Your task to perform on an android device: change the clock display to show seconds Image 0: 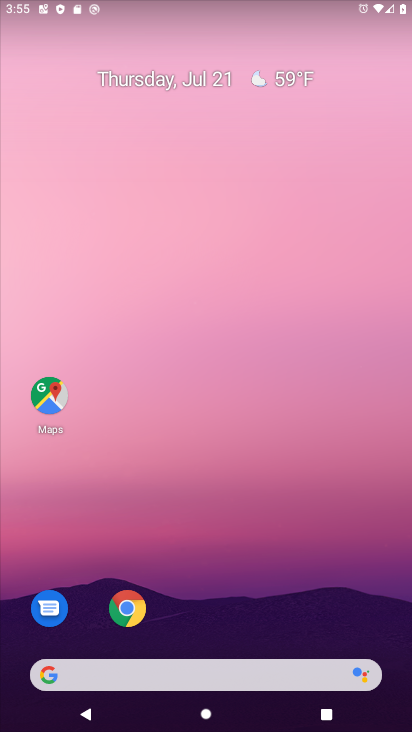
Step 0: drag from (237, 679) to (301, 2)
Your task to perform on an android device: change the clock display to show seconds Image 1: 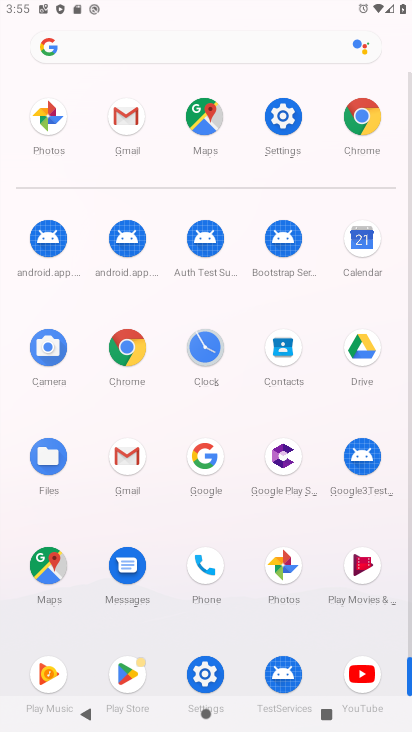
Step 1: click (206, 350)
Your task to perform on an android device: change the clock display to show seconds Image 2: 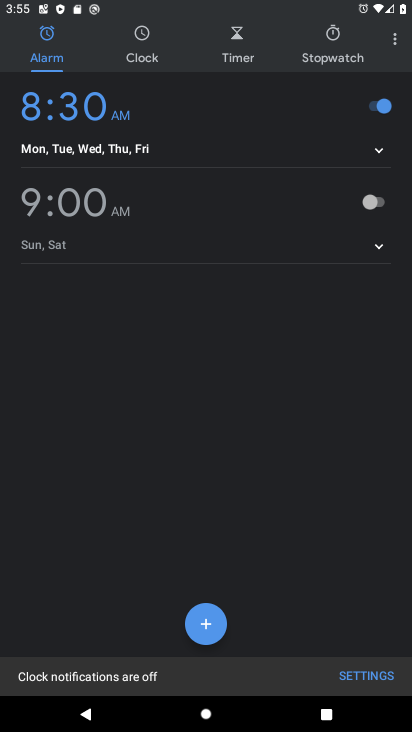
Step 2: click (393, 38)
Your task to perform on an android device: change the clock display to show seconds Image 3: 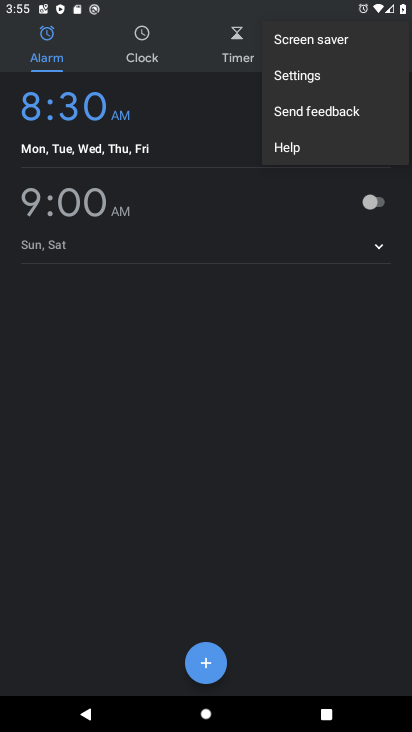
Step 3: click (304, 83)
Your task to perform on an android device: change the clock display to show seconds Image 4: 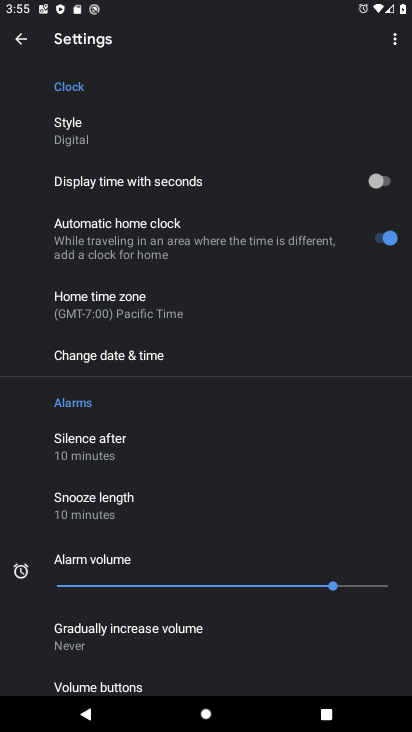
Step 4: click (390, 181)
Your task to perform on an android device: change the clock display to show seconds Image 5: 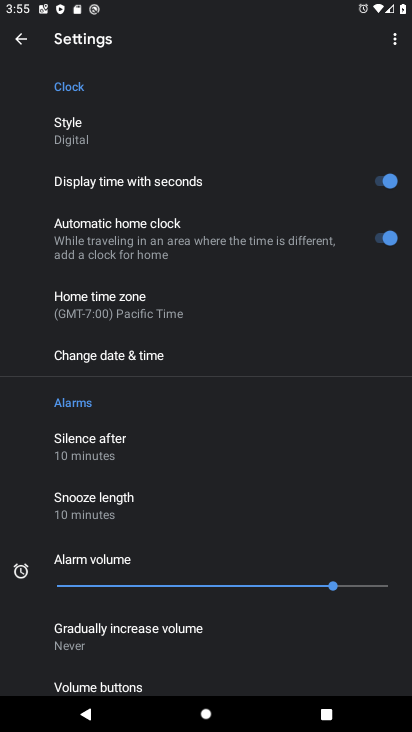
Step 5: task complete